Your task to perform on an android device: turn off sleep mode Image 0: 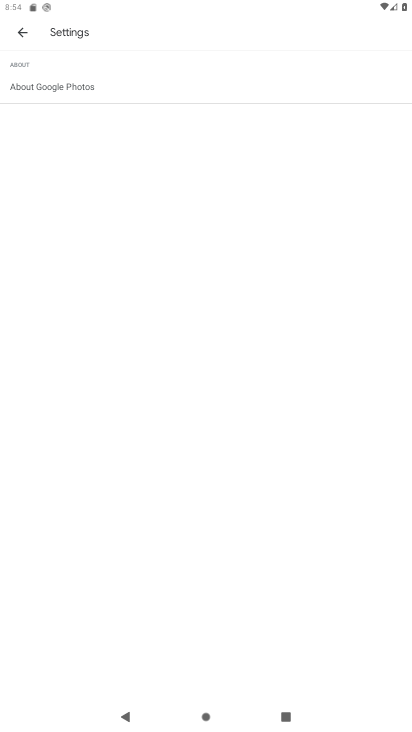
Step 0: press home button
Your task to perform on an android device: turn off sleep mode Image 1: 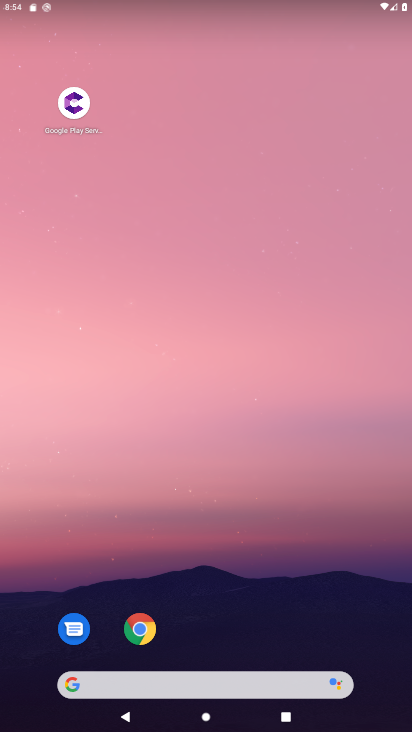
Step 1: drag from (198, 655) to (329, 19)
Your task to perform on an android device: turn off sleep mode Image 2: 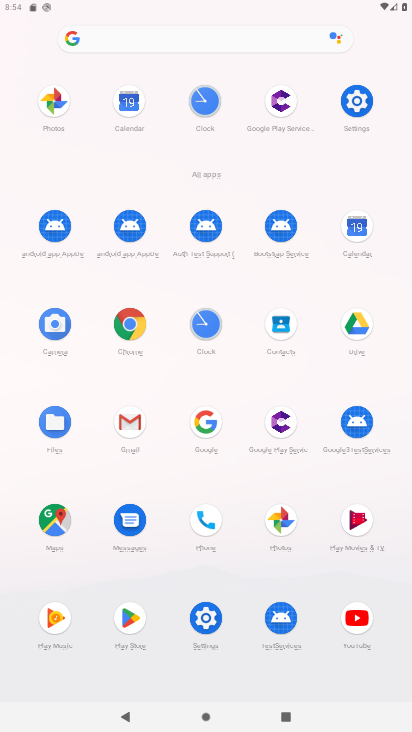
Step 2: click (360, 110)
Your task to perform on an android device: turn off sleep mode Image 3: 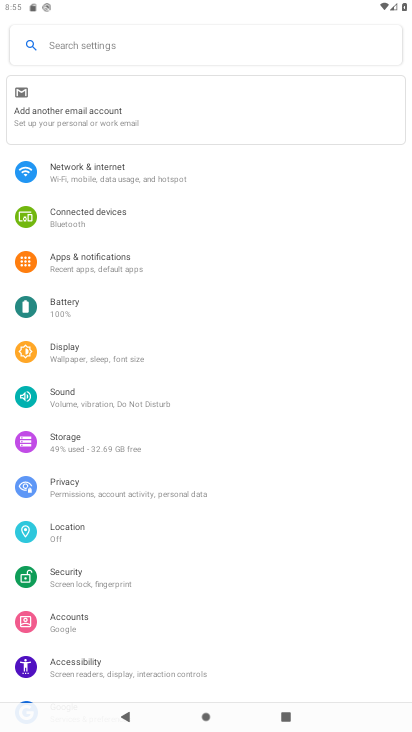
Step 3: click (95, 341)
Your task to perform on an android device: turn off sleep mode Image 4: 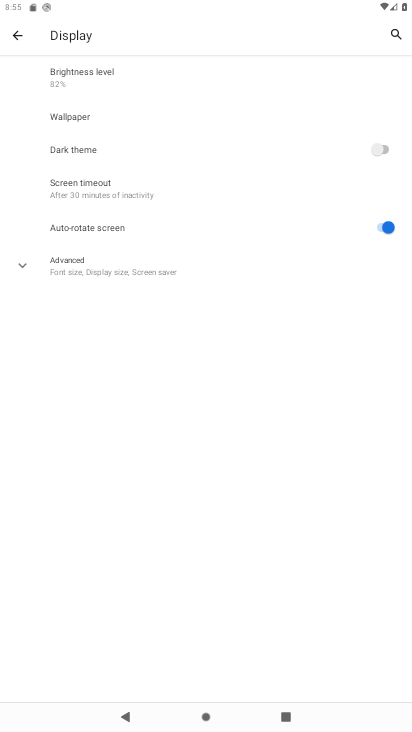
Step 4: task complete